Your task to perform on an android device: Search for seafood restaurants on Google Maps Image 0: 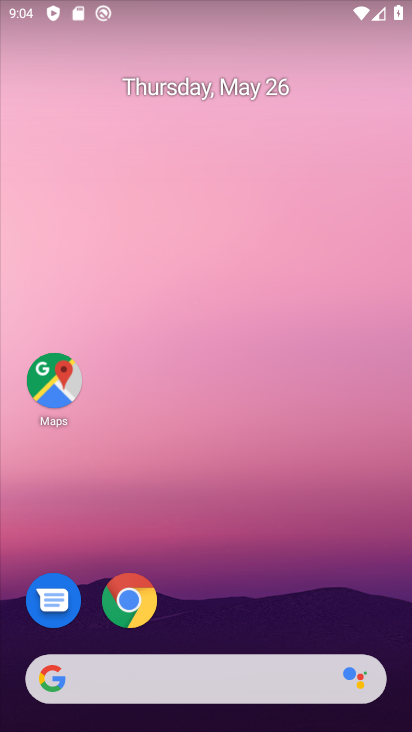
Step 0: click (56, 393)
Your task to perform on an android device: Search for seafood restaurants on Google Maps Image 1: 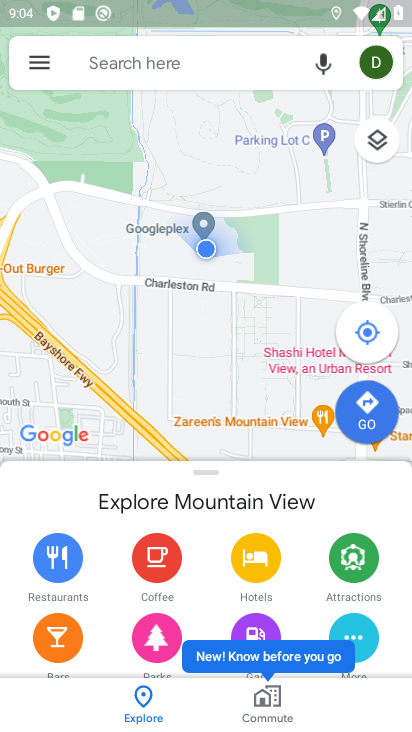
Step 1: click (158, 59)
Your task to perform on an android device: Search for seafood restaurants on Google Maps Image 2: 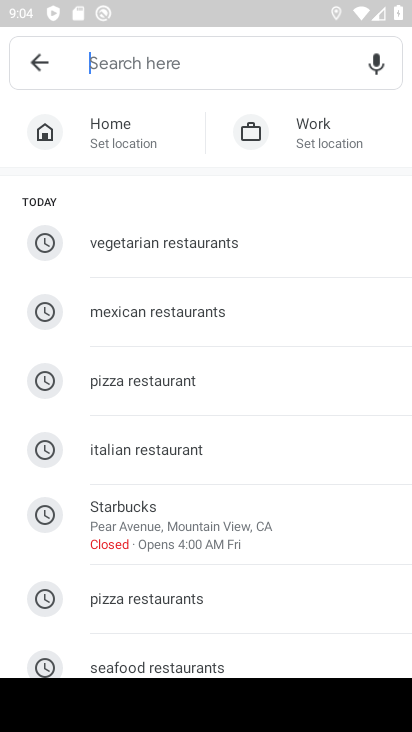
Step 2: click (205, 648)
Your task to perform on an android device: Search for seafood restaurants on Google Maps Image 3: 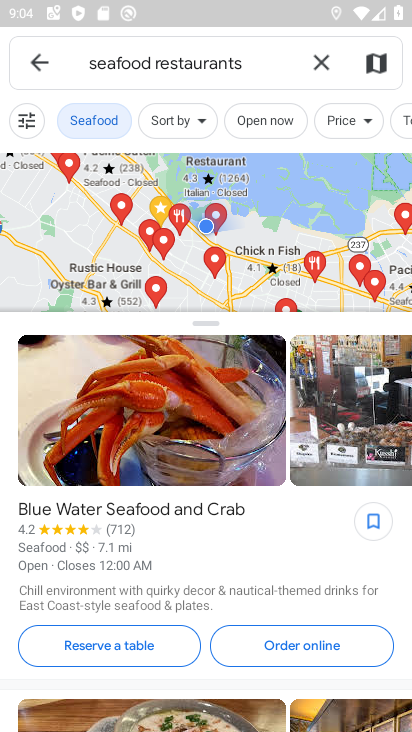
Step 3: task complete